Your task to perform on an android device: Open the Play Movies app and select the watchlist tab. Image 0: 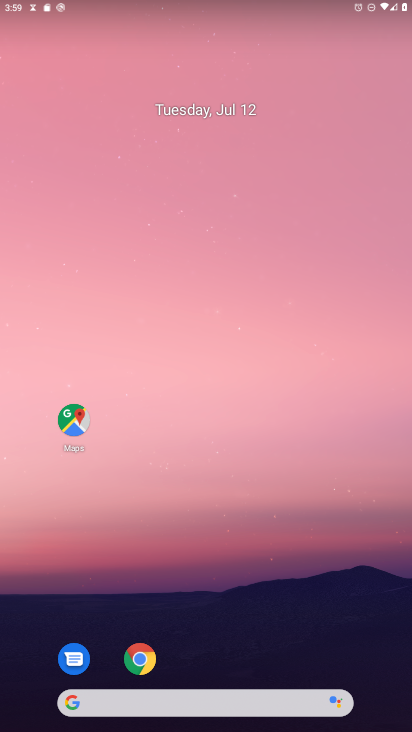
Step 0: drag from (177, 569) to (164, 192)
Your task to perform on an android device: Open the Play Movies app and select the watchlist tab. Image 1: 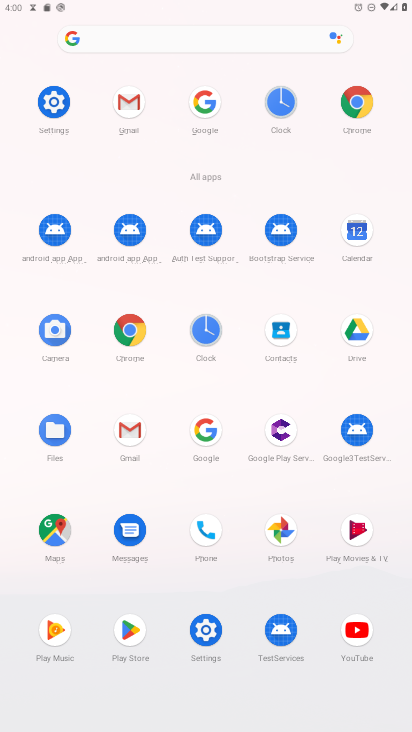
Step 1: click (358, 543)
Your task to perform on an android device: Open the Play Movies app and select the watchlist tab. Image 2: 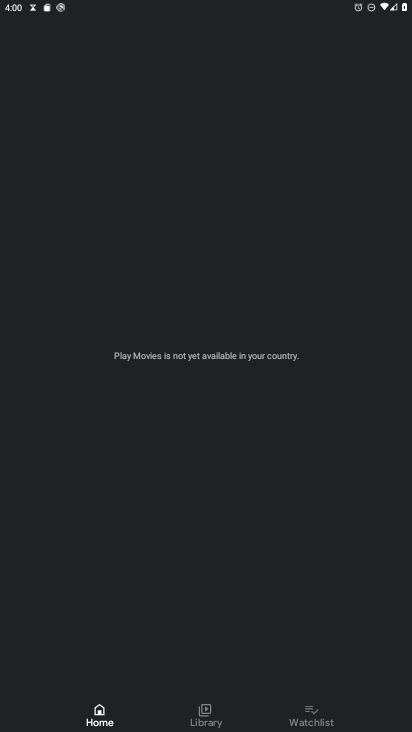
Step 2: click (317, 712)
Your task to perform on an android device: Open the Play Movies app and select the watchlist tab. Image 3: 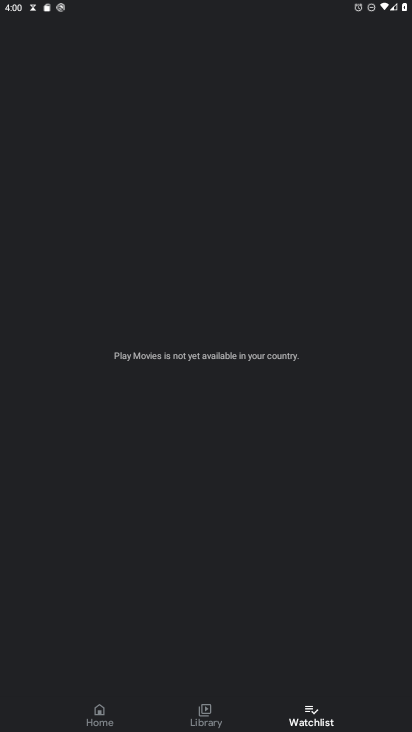
Step 3: task complete